Your task to perform on an android device: toggle airplane mode Image 0: 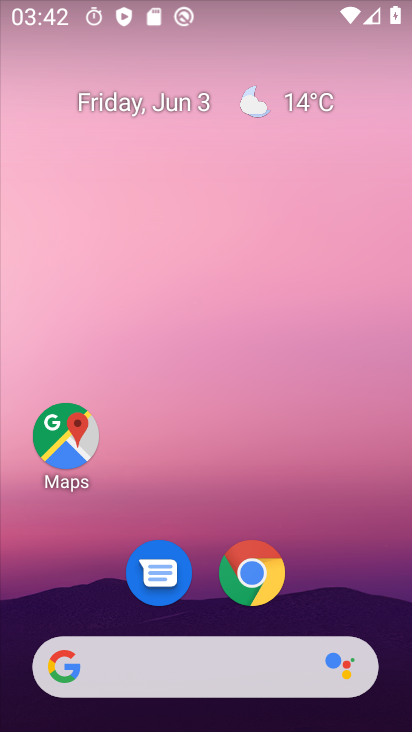
Step 0: drag from (254, 5) to (259, 496)
Your task to perform on an android device: toggle airplane mode Image 1: 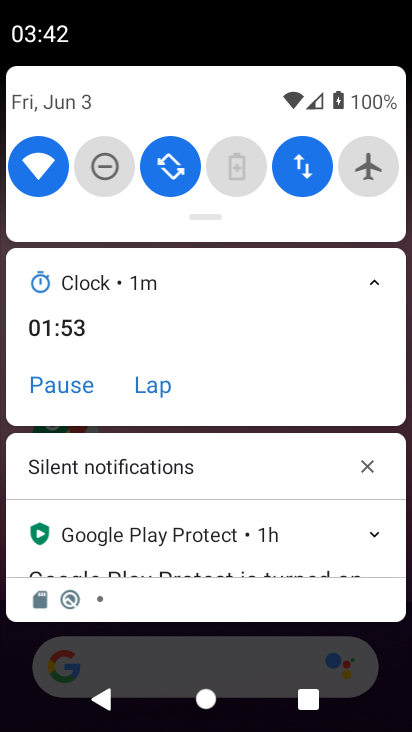
Step 1: drag from (190, 256) to (274, 622)
Your task to perform on an android device: toggle airplane mode Image 2: 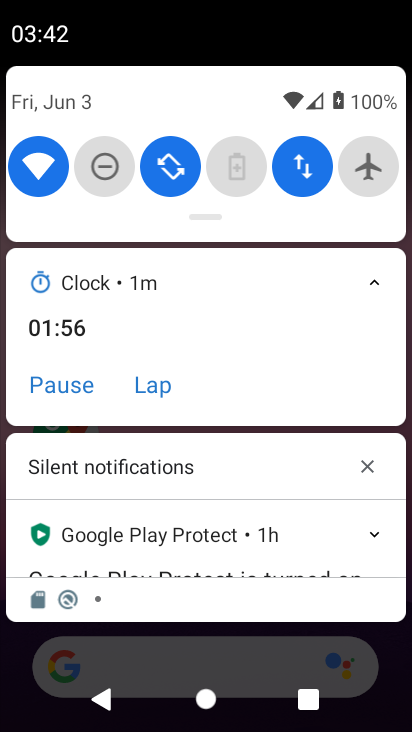
Step 2: drag from (347, 195) to (334, 607)
Your task to perform on an android device: toggle airplane mode Image 3: 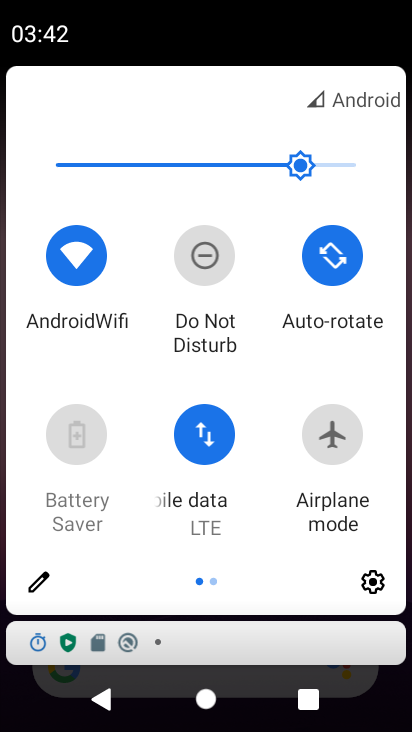
Step 3: click (328, 424)
Your task to perform on an android device: toggle airplane mode Image 4: 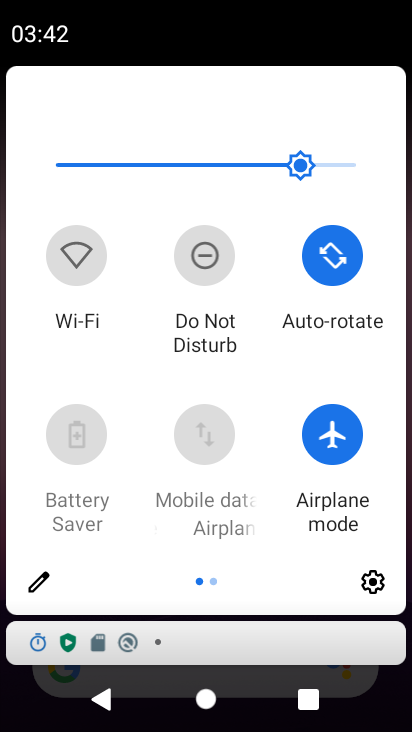
Step 4: task complete